Your task to perform on an android device: Search for flights from NYC to Tokyo Image 0: 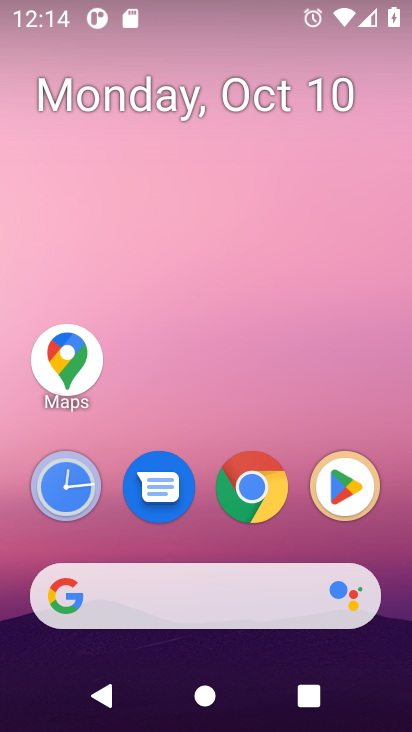
Step 0: drag from (211, 557) to (178, 39)
Your task to perform on an android device: Search for flights from NYC to Tokyo Image 1: 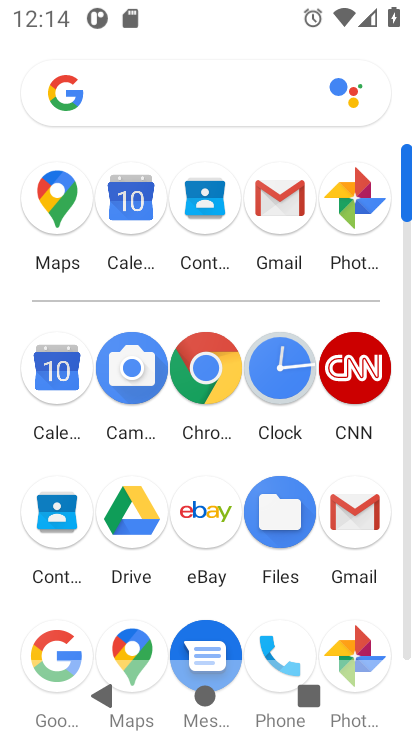
Step 1: click (59, 644)
Your task to perform on an android device: Search for flights from NYC to Tokyo Image 2: 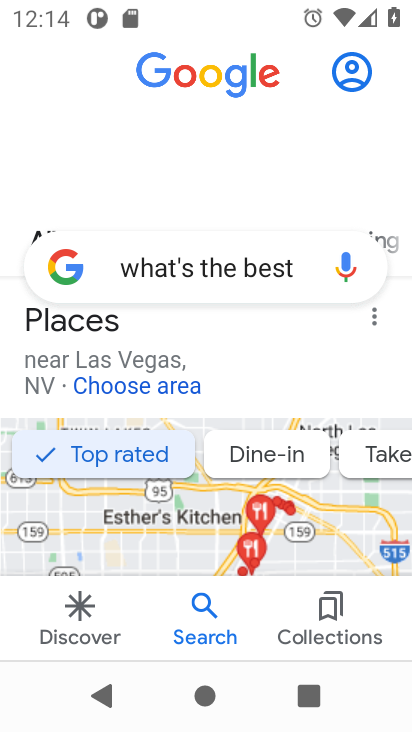
Step 2: click (231, 258)
Your task to perform on an android device: Search for flights from NYC to Tokyo Image 3: 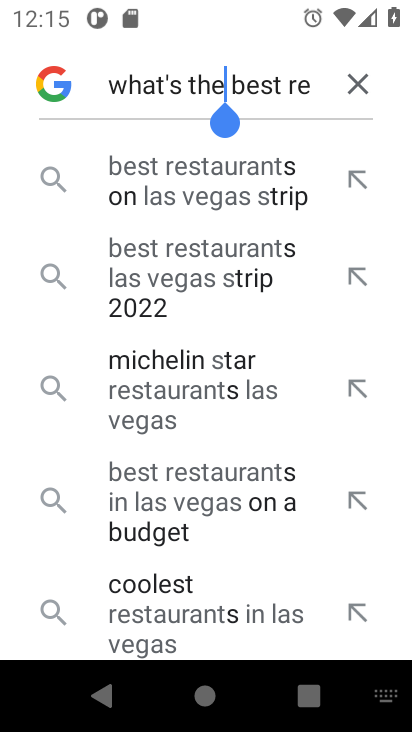
Step 3: click (353, 81)
Your task to perform on an android device: Search for flights from NYC to Tokyo Image 4: 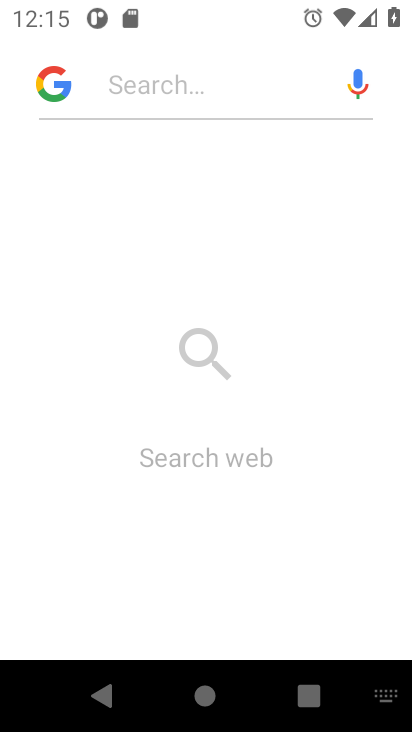
Step 4: type " flights from NYC to Tokyo"
Your task to perform on an android device: Search for flights from NYC to Tokyo Image 5: 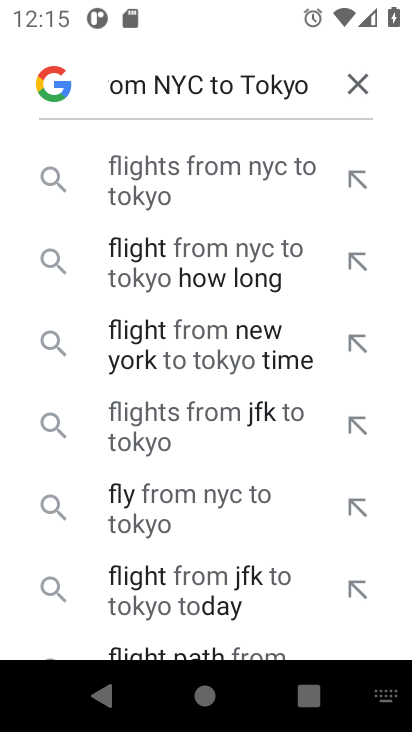
Step 5: click (205, 171)
Your task to perform on an android device: Search for flights from NYC to Tokyo Image 6: 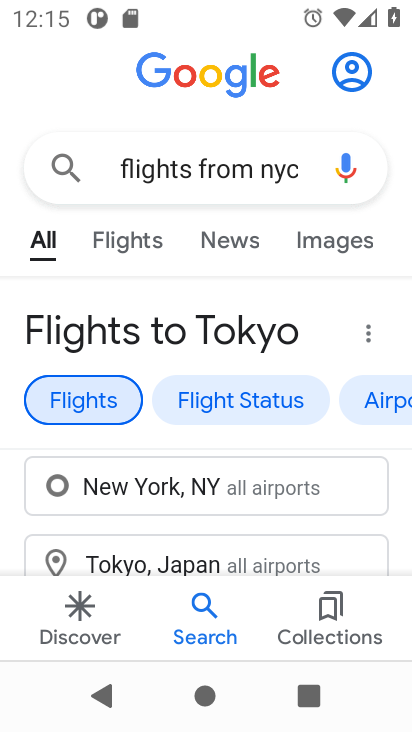
Step 6: task complete